Your task to perform on an android device: Open wifi settings Image 0: 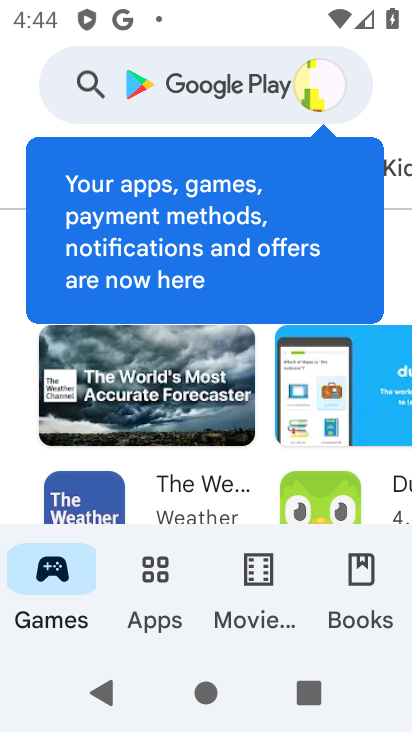
Step 0: press home button
Your task to perform on an android device: Open wifi settings Image 1: 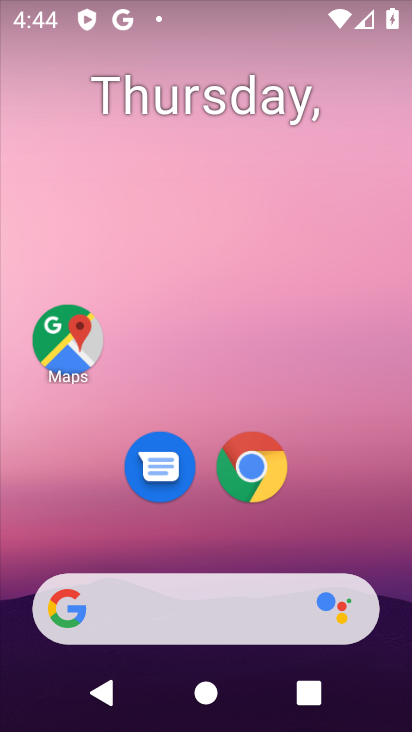
Step 1: drag from (386, 518) to (357, 7)
Your task to perform on an android device: Open wifi settings Image 2: 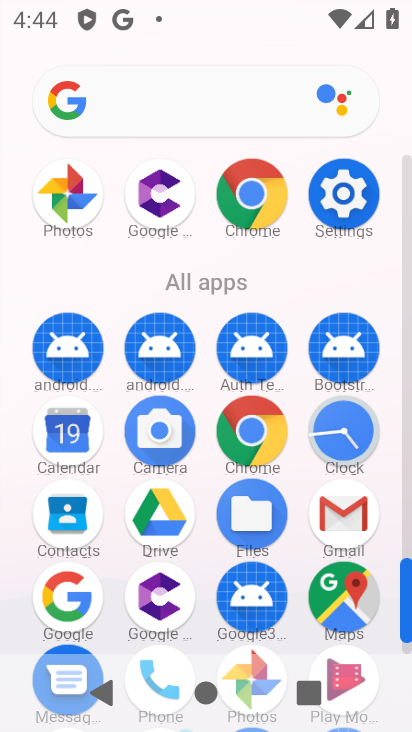
Step 2: click (355, 195)
Your task to perform on an android device: Open wifi settings Image 3: 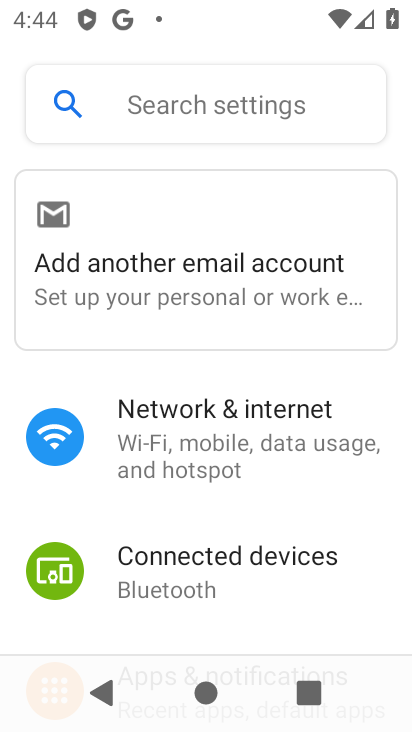
Step 3: click (231, 436)
Your task to perform on an android device: Open wifi settings Image 4: 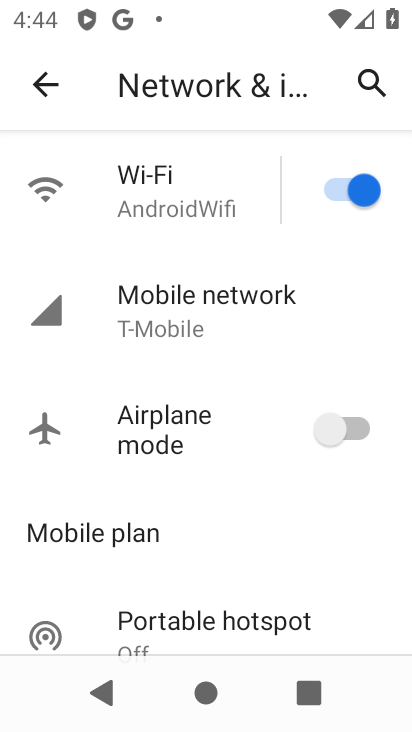
Step 4: click (140, 174)
Your task to perform on an android device: Open wifi settings Image 5: 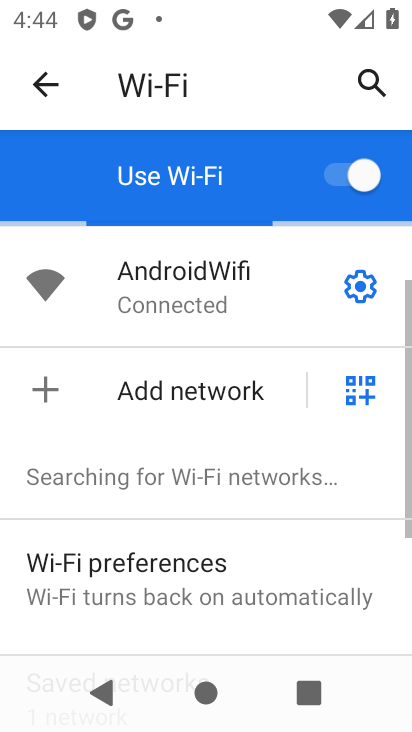
Step 5: task complete